Your task to perform on an android device: clear all cookies in the chrome app Image 0: 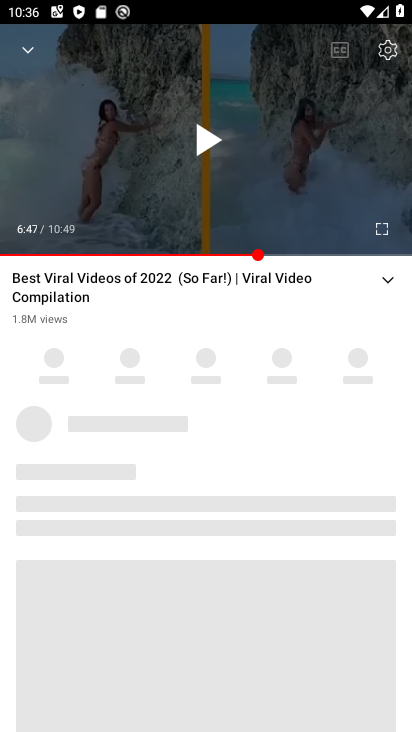
Step 0: press home button
Your task to perform on an android device: clear all cookies in the chrome app Image 1: 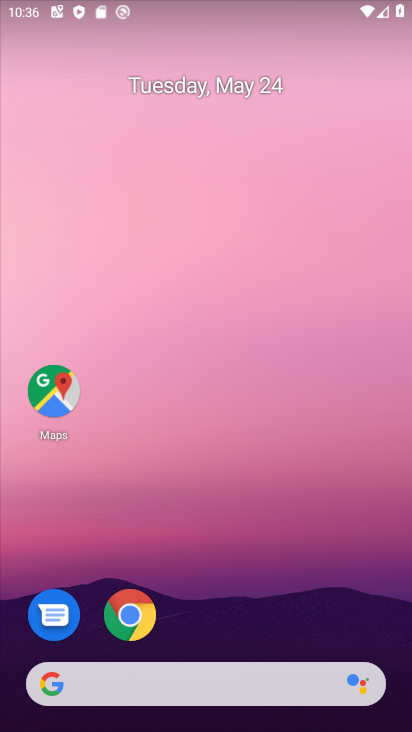
Step 1: click (136, 621)
Your task to perform on an android device: clear all cookies in the chrome app Image 2: 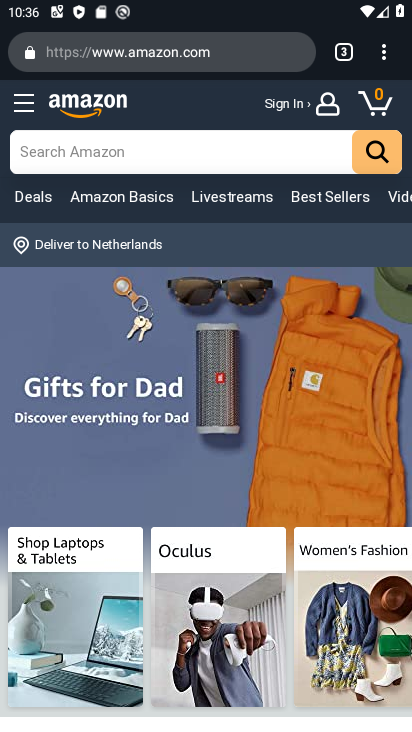
Step 2: click (380, 36)
Your task to perform on an android device: clear all cookies in the chrome app Image 3: 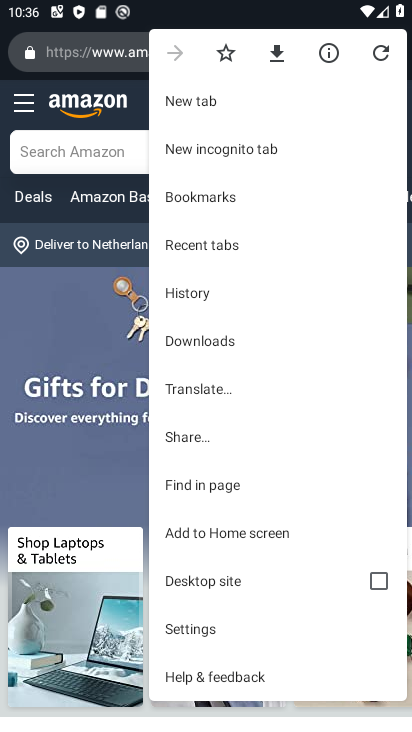
Step 3: click (174, 635)
Your task to perform on an android device: clear all cookies in the chrome app Image 4: 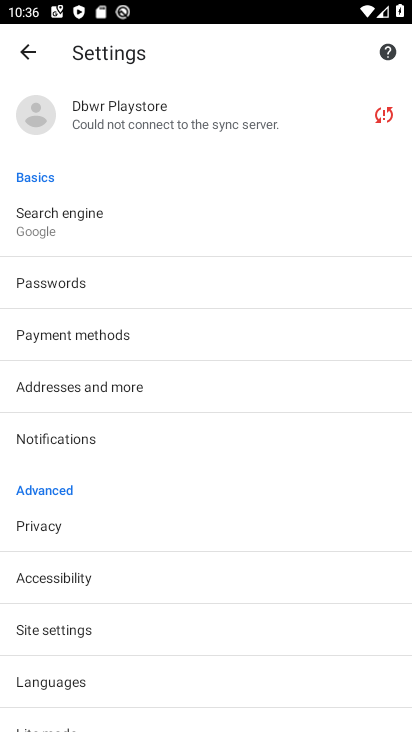
Step 4: click (119, 633)
Your task to perform on an android device: clear all cookies in the chrome app Image 5: 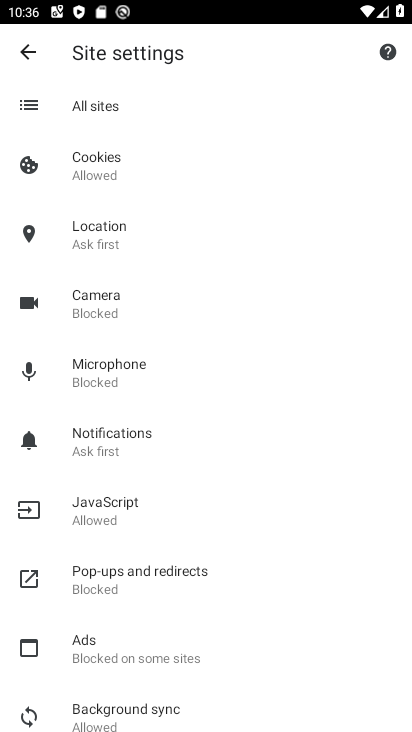
Step 5: click (95, 163)
Your task to perform on an android device: clear all cookies in the chrome app Image 6: 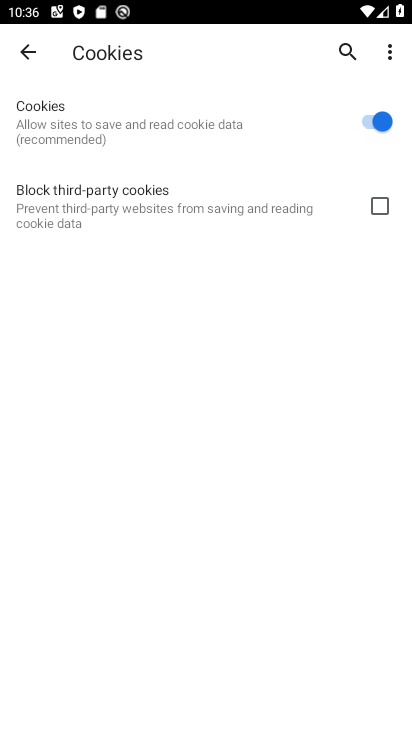
Step 6: click (393, 37)
Your task to perform on an android device: clear all cookies in the chrome app Image 7: 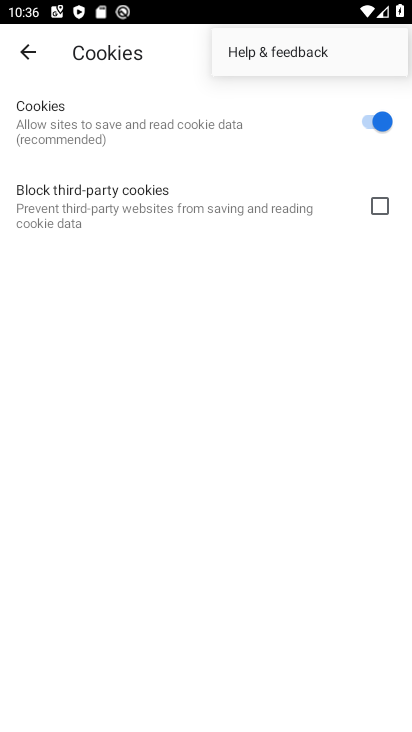
Step 7: task complete